Your task to perform on an android device: Turn off the flashlight Image 0: 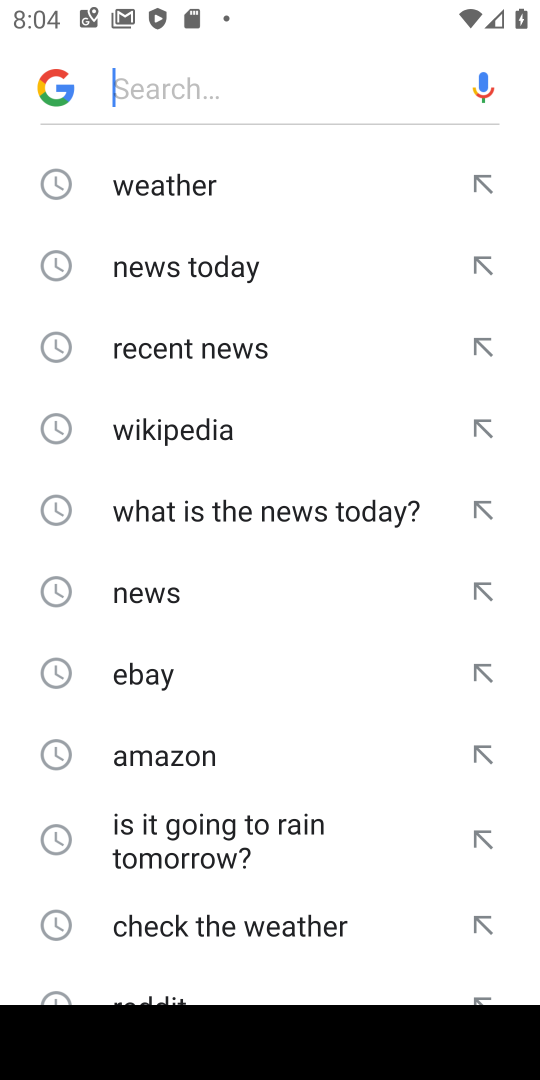
Step 0: press home button
Your task to perform on an android device: Turn off the flashlight Image 1: 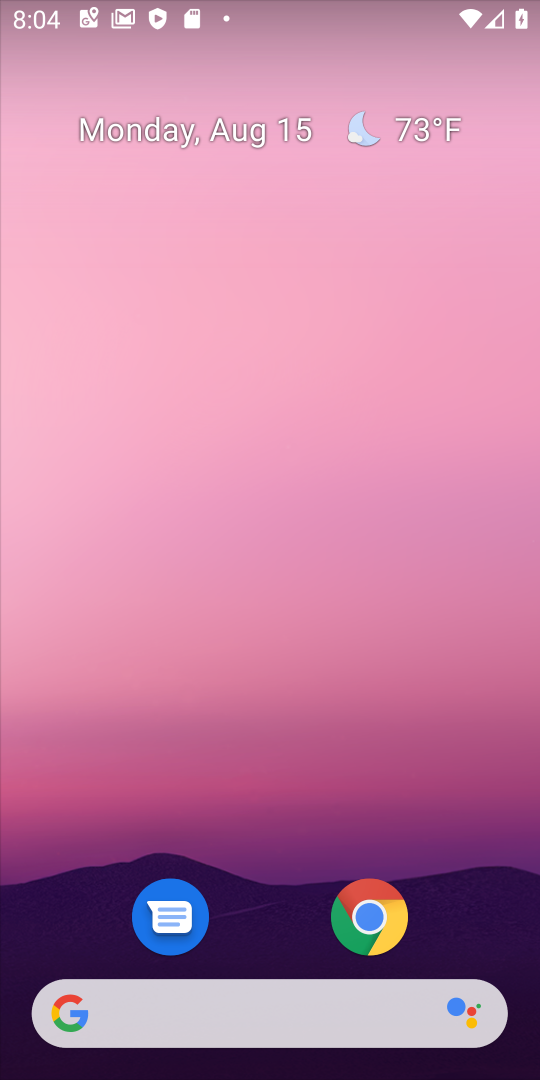
Step 1: drag from (283, 876) to (280, 10)
Your task to perform on an android device: Turn off the flashlight Image 2: 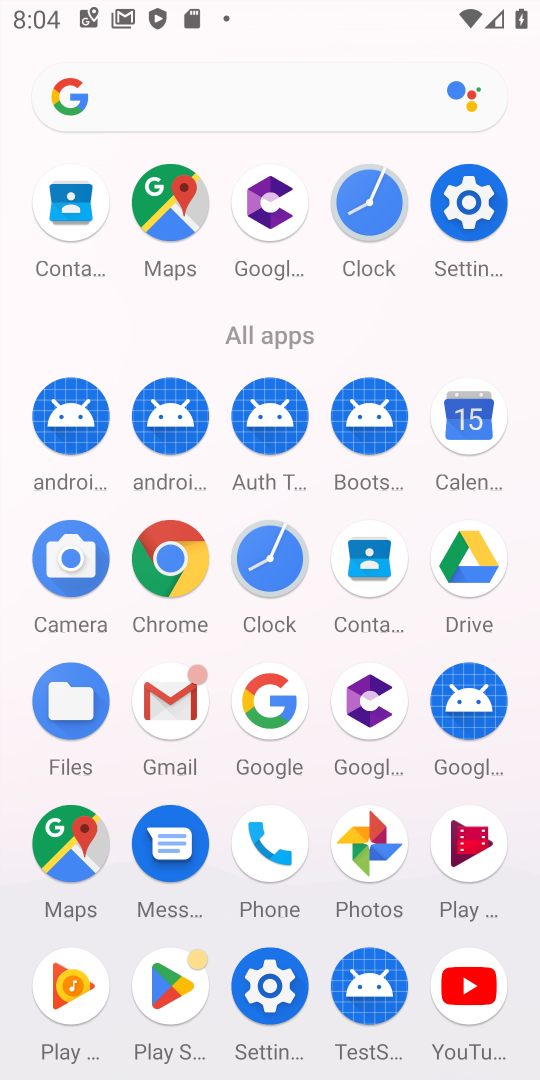
Step 2: click (474, 203)
Your task to perform on an android device: Turn off the flashlight Image 3: 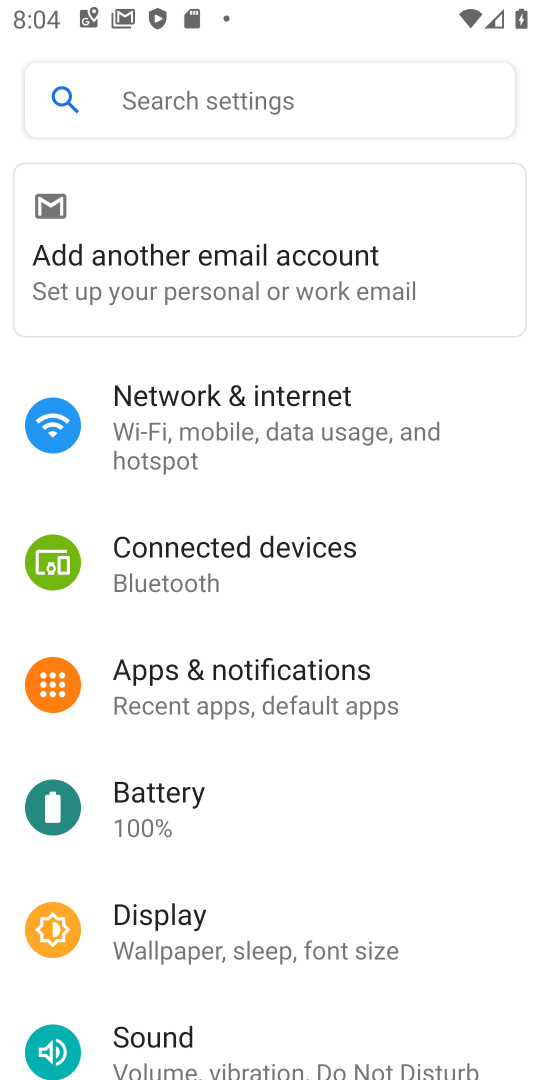
Step 3: click (390, 108)
Your task to perform on an android device: Turn off the flashlight Image 4: 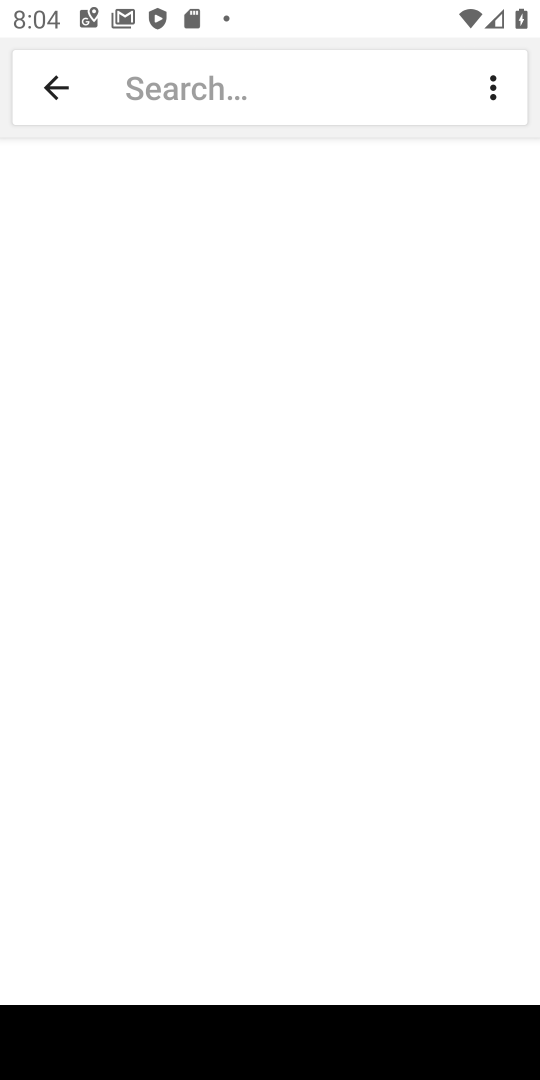
Step 4: type "Flashlight"
Your task to perform on an android device: Turn off the flashlight Image 5: 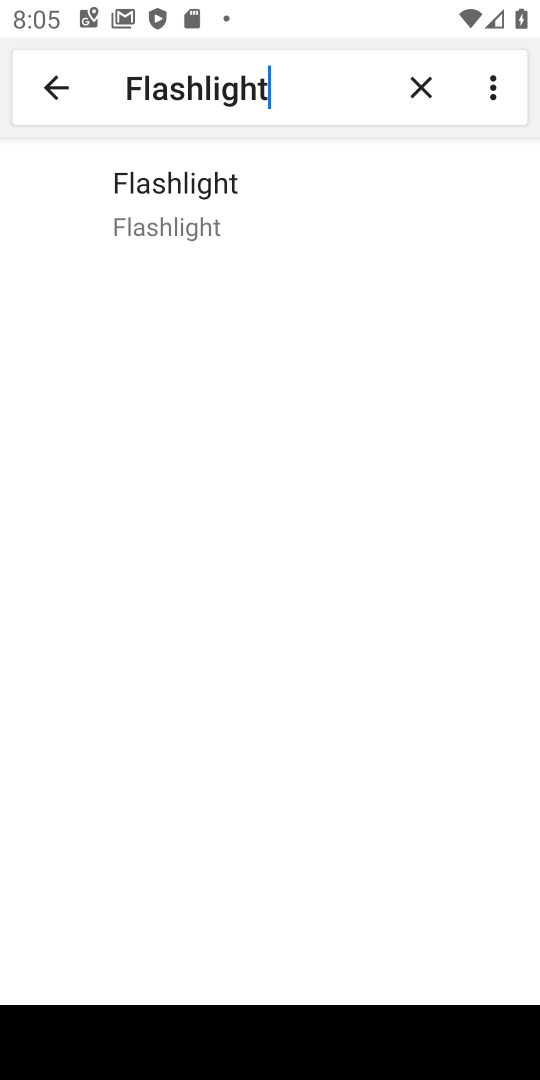
Step 5: click (200, 194)
Your task to perform on an android device: Turn off the flashlight Image 6: 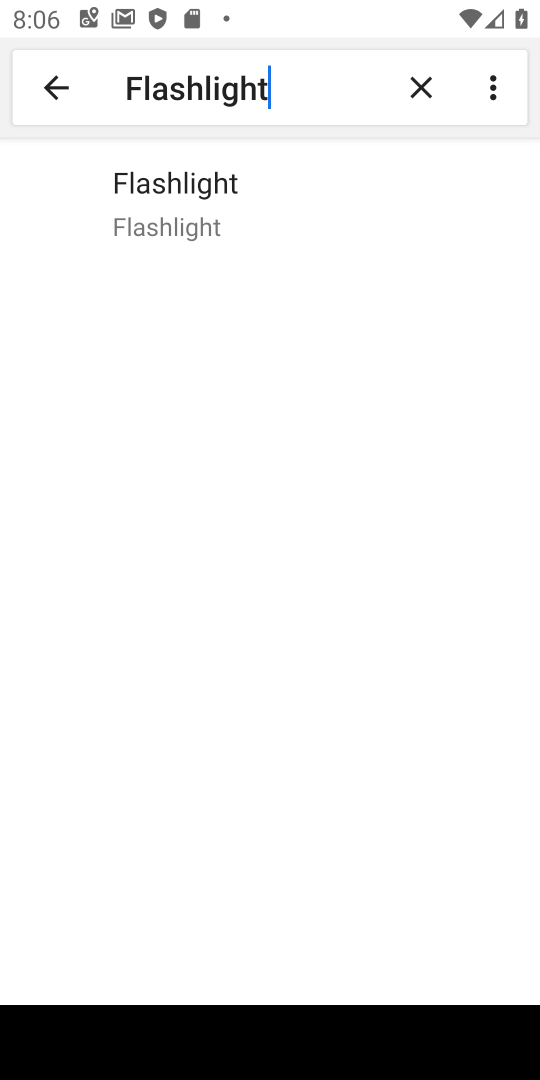
Step 6: click (179, 200)
Your task to perform on an android device: Turn off the flashlight Image 7: 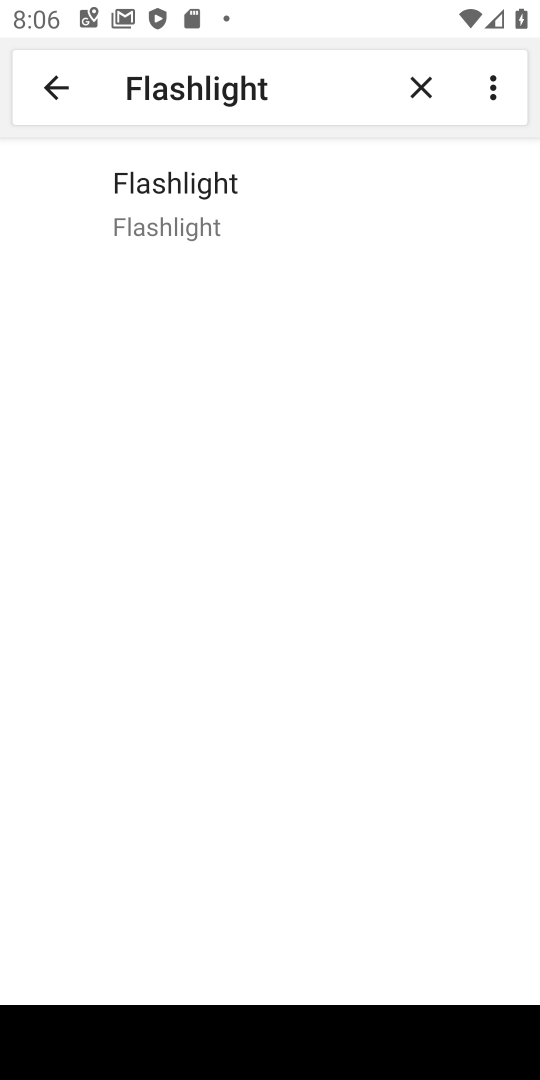
Step 7: task complete